Your task to perform on an android device: Search for pizza restaurants on Maps Image 0: 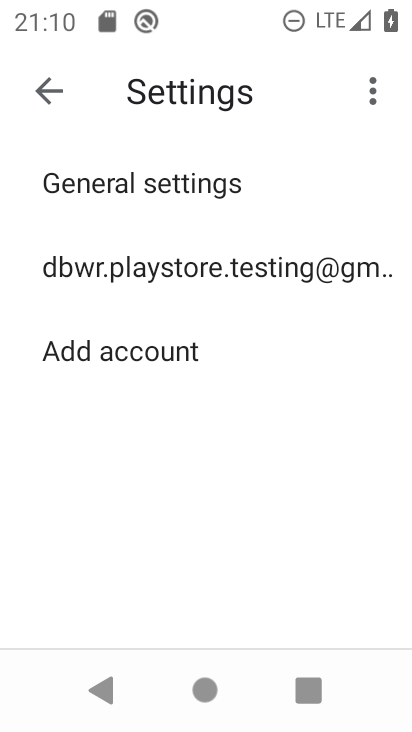
Step 0: press home button
Your task to perform on an android device: Search for pizza restaurants on Maps Image 1: 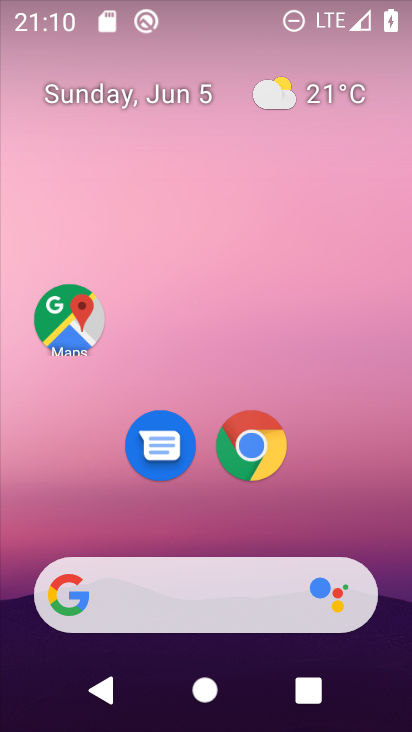
Step 1: click (48, 316)
Your task to perform on an android device: Search for pizza restaurants on Maps Image 2: 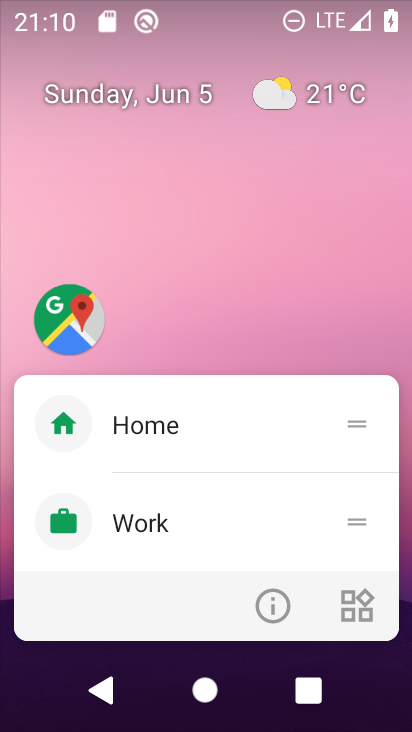
Step 2: click (50, 316)
Your task to perform on an android device: Search for pizza restaurants on Maps Image 3: 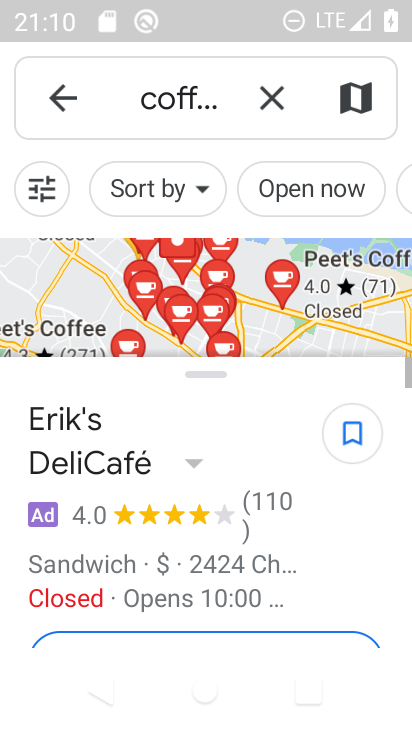
Step 3: click (268, 94)
Your task to perform on an android device: Search for pizza restaurants on Maps Image 4: 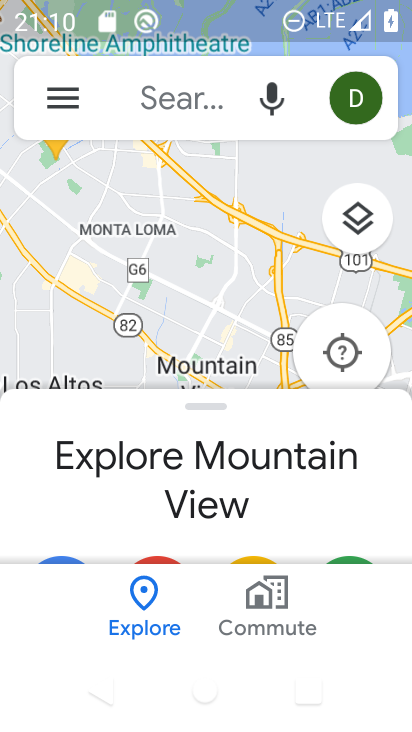
Step 4: click (197, 94)
Your task to perform on an android device: Search for pizza restaurants on Maps Image 5: 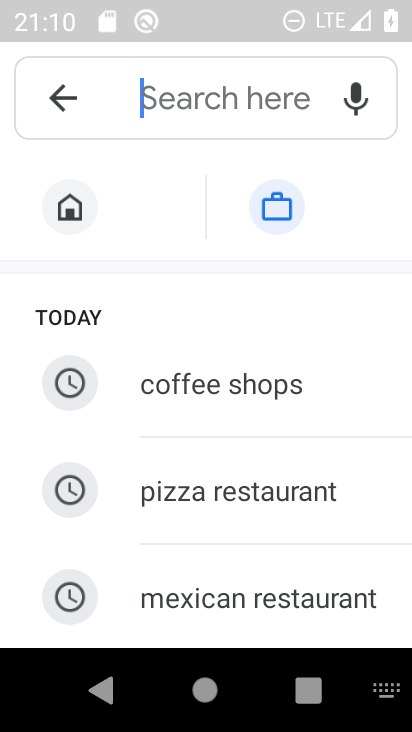
Step 5: click (210, 497)
Your task to perform on an android device: Search for pizza restaurants on Maps Image 6: 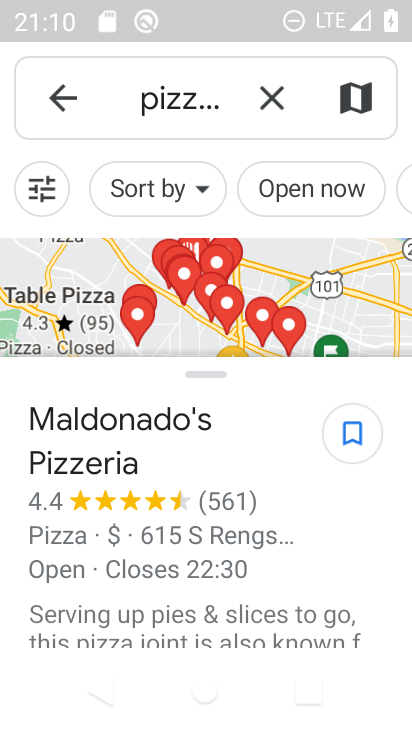
Step 6: task complete